Your task to perform on an android device: turn smart compose on in the gmail app Image 0: 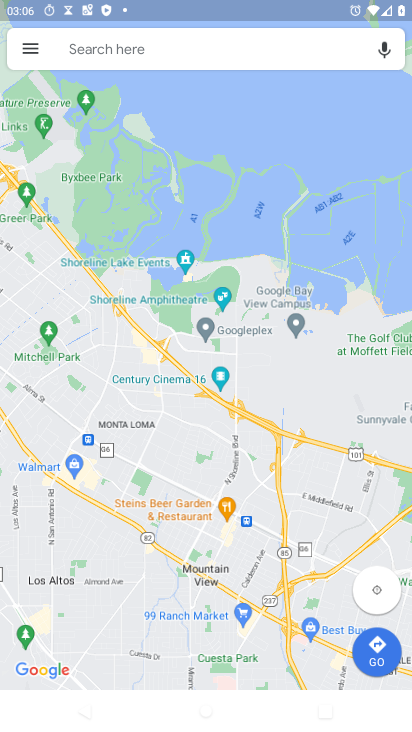
Step 0: press home button
Your task to perform on an android device: turn smart compose on in the gmail app Image 1: 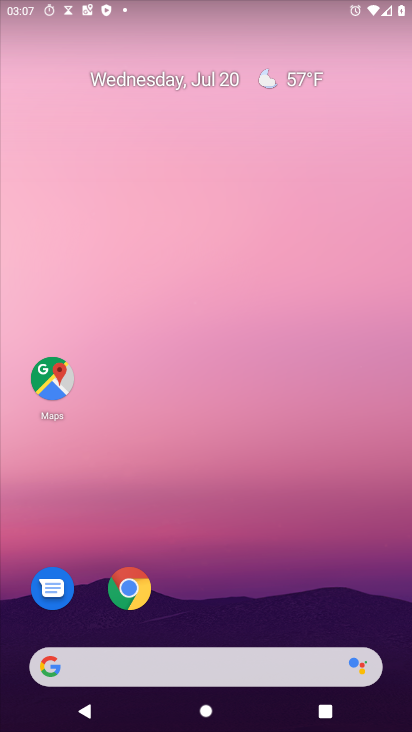
Step 1: drag from (302, 508) to (293, 259)
Your task to perform on an android device: turn smart compose on in the gmail app Image 2: 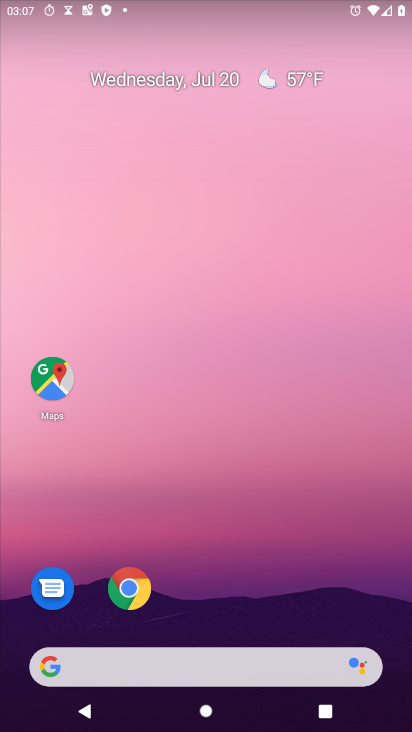
Step 2: drag from (271, 652) to (293, 32)
Your task to perform on an android device: turn smart compose on in the gmail app Image 3: 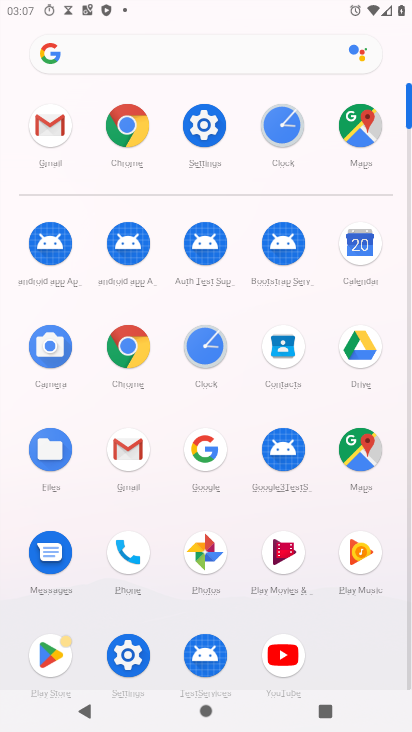
Step 3: click (134, 447)
Your task to perform on an android device: turn smart compose on in the gmail app Image 4: 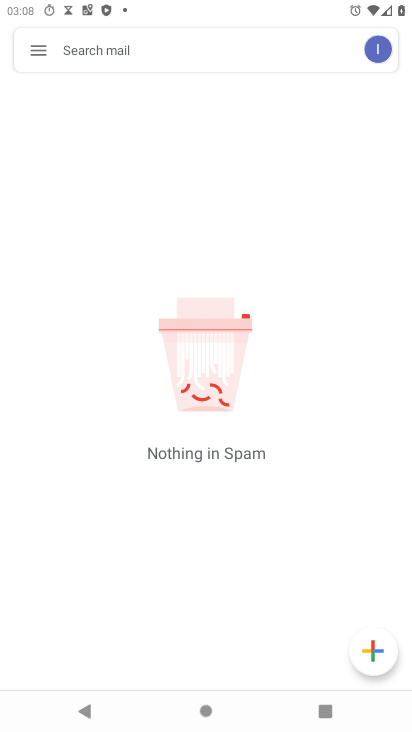
Step 4: click (41, 59)
Your task to perform on an android device: turn smart compose on in the gmail app Image 5: 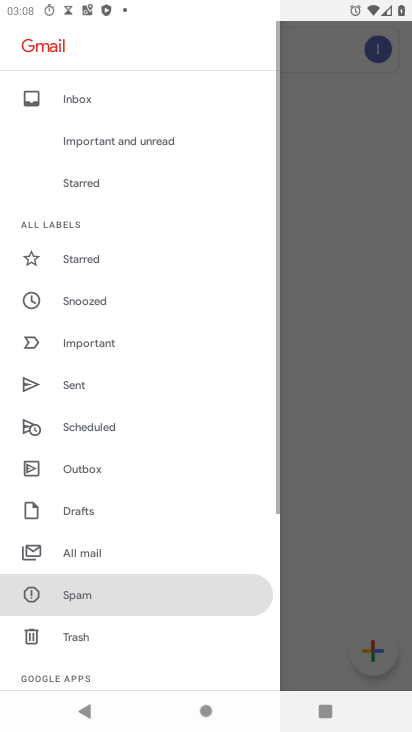
Step 5: drag from (91, 641) to (90, 145)
Your task to perform on an android device: turn smart compose on in the gmail app Image 6: 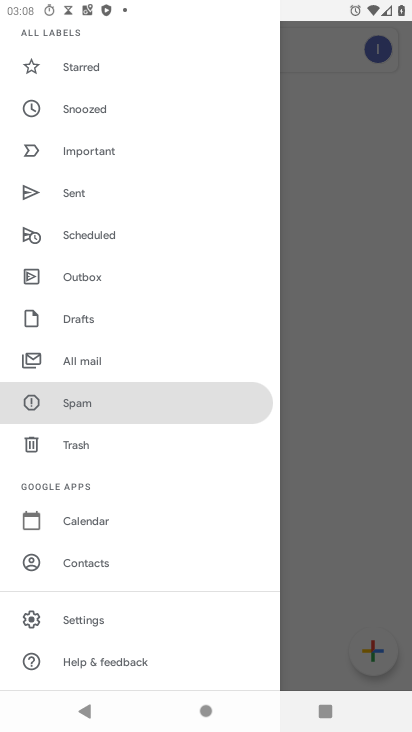
Step 6: click (102, 621)
Your task to perform on an android device: turn smart compose on in the gmail app Image 7: 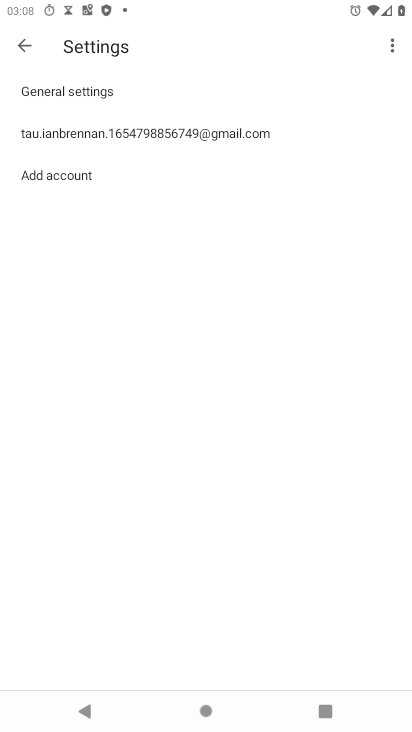
Step 7: click (106, 130)
Your task to perform on an android device: turn smart compose on in the gmail app Image 8: 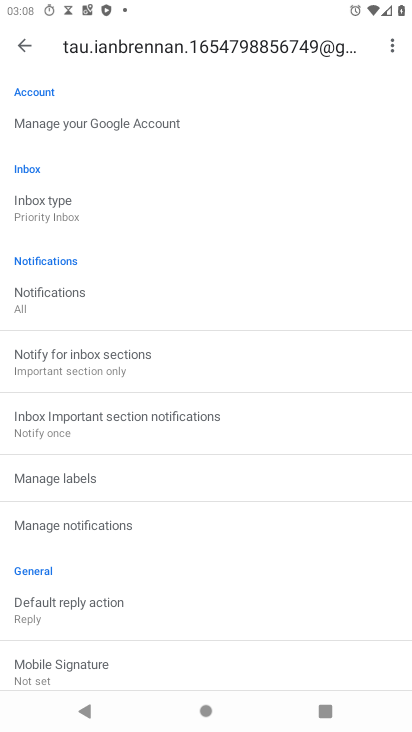
Step 8: task complete